Your task to perform on an android device: toggle notification dots Image 0: 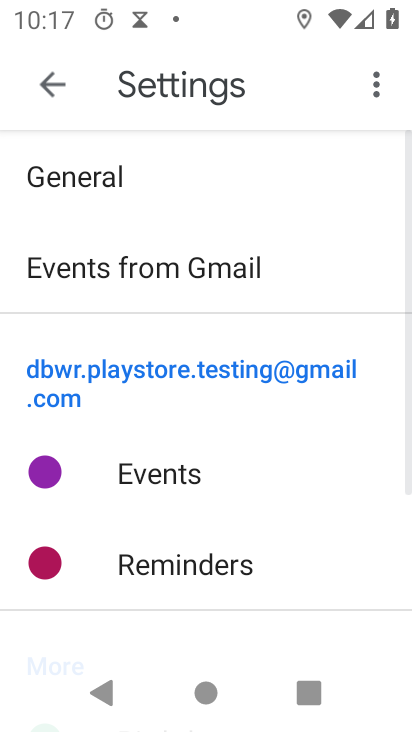
Step 0: press home button
Your task to perform on an android device: toggle notification dots Image 1: 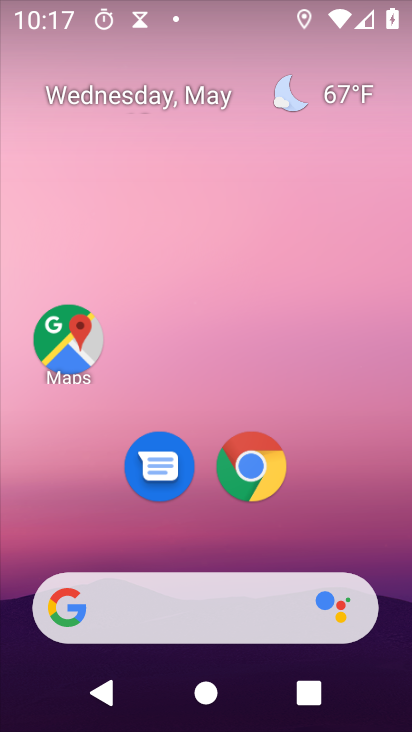
Step 1: drag from (267, 541) to (299, 162)
Your task to perform on an android device: toggle notification dots Image 2: 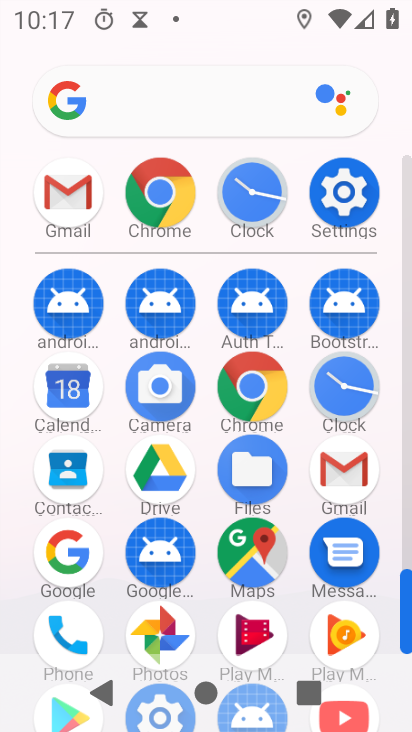
Step 2: click (338, 210)
Your task to perform on an android device: toggle notification dots Image 3: 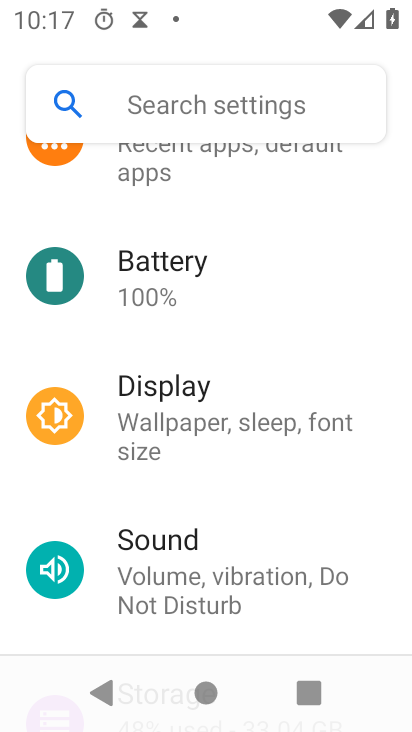
Step 3: drag from (176, 156) to (173, 427)
Your task to perform on an android device: toggle notification dots Image 4: 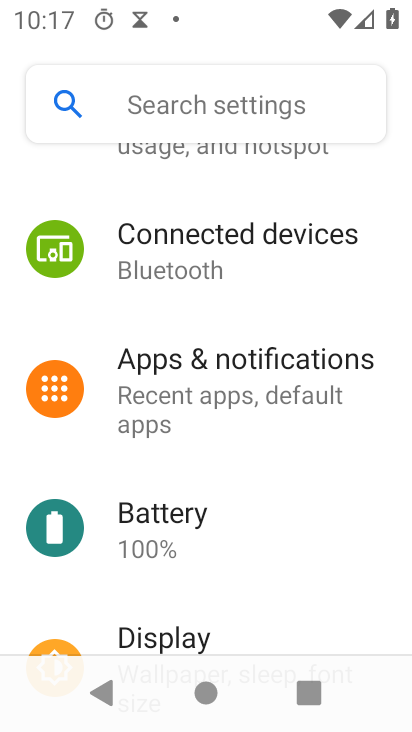
Step 4: click (164, 386)
Your task to perform on an android device: toggle notification dots Image 5: 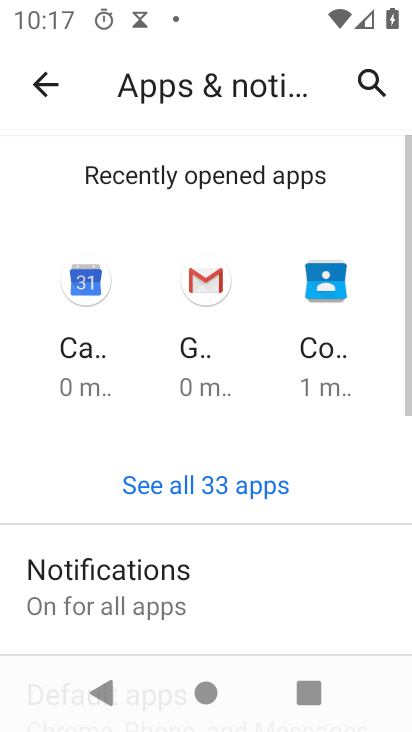
Step 5: drag from (211, 574) to (212, 307)
Your task to perform on an android device: toggle notification dots Image 6: 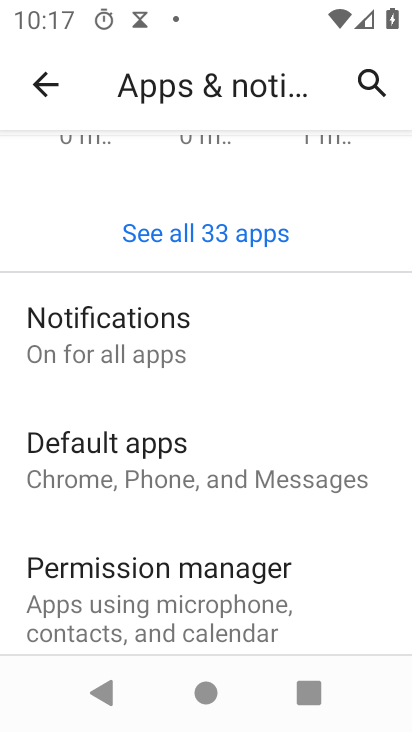
Step 6: click (139, 331)
Your task to perform on an android device: toggle notification dots Image 7: 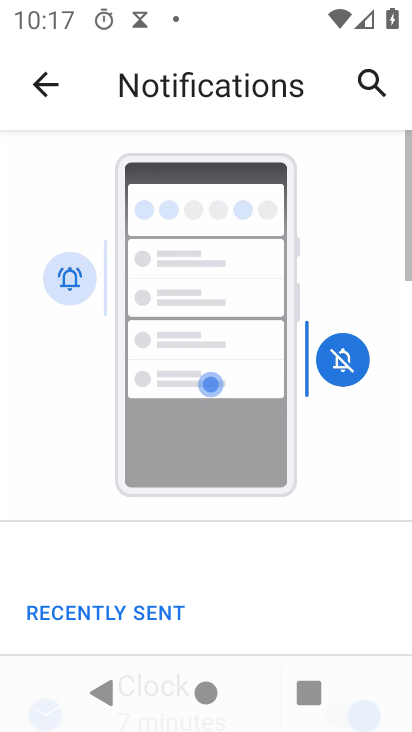
Step 7: drag from (161, 533) to (167, 190)
Your task to perform on an android device: toggle notification dots Image 8: 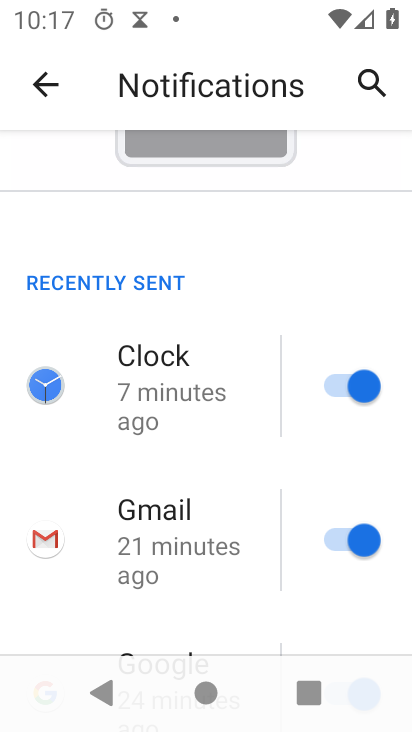
Step 8: drag from (148, 560) to (168, 240)
Your task to perform on an android device: toggle notification dots Image 9: 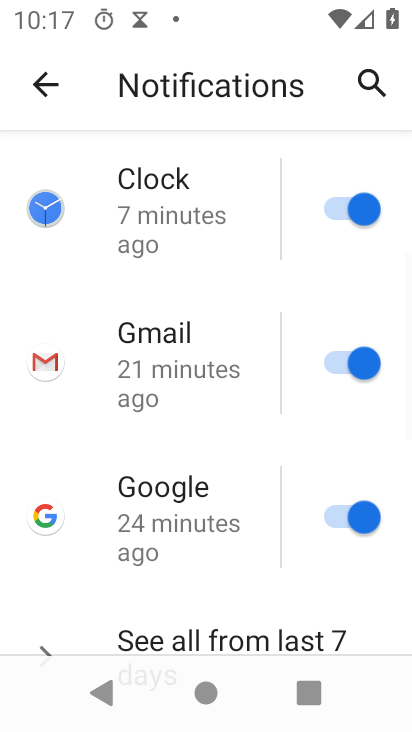
Step 9: drag from (175, 548) to (200, 228)
Your task to perform on an android device: toggle notification dots Image 10: 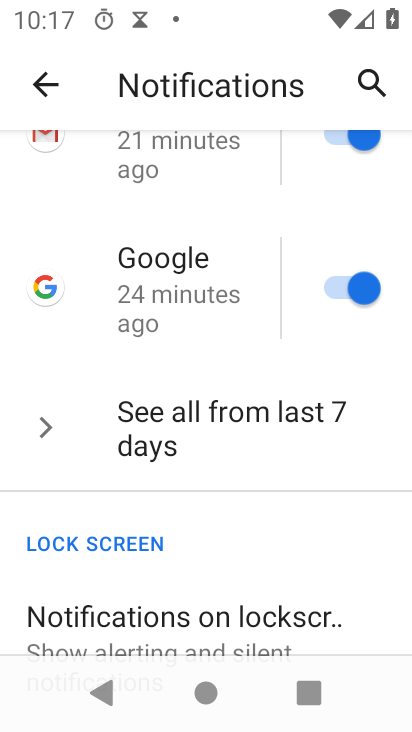
Step 10: click (188, 604)
Your task to perform on an android device: toggle notification dots Image 11: 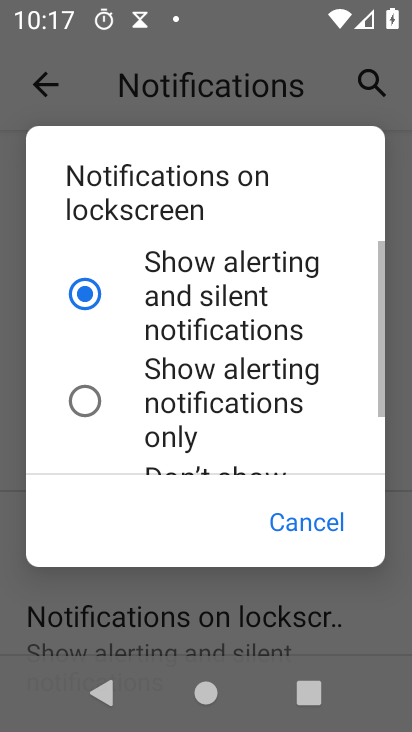
Step 11: click (286, 523)
Your task to perform on an android device: toggle notification dots Image 12: 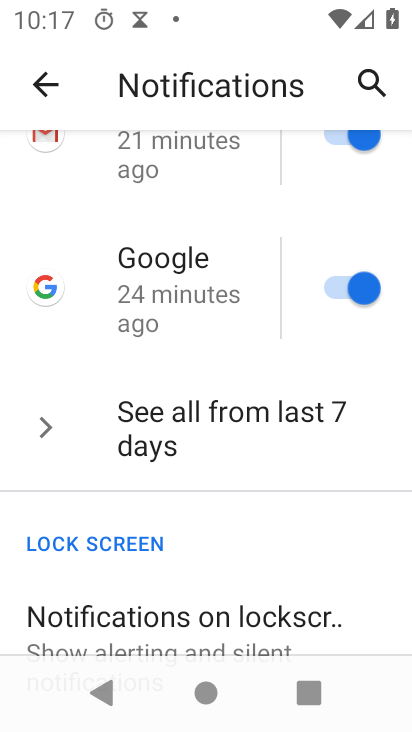
Step 12: drag from (212, 598) to (230, 283)
Your task to perform on an android device: toggle notification dots Image 13: 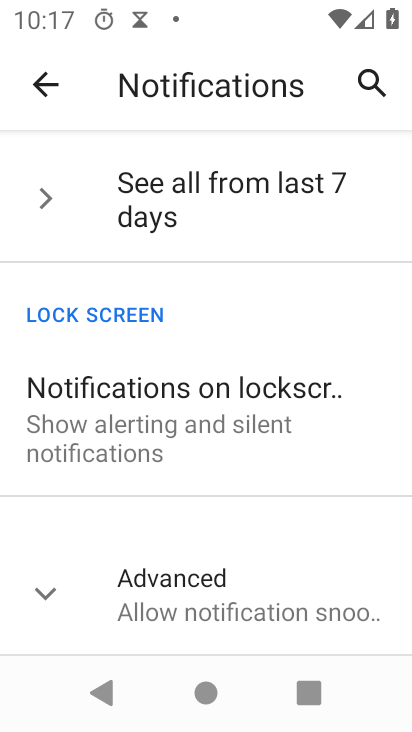
Step 13: click (192, 587)
Your task to perform on an android device: toggle notification dots Image 14: 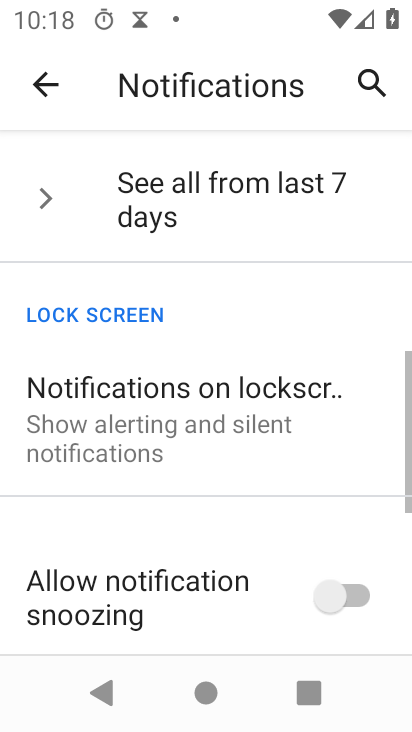
Step 14: drag from (193, 600) to (202, 304)
Your task to perform on an android device: toggle notification dots Image 15: 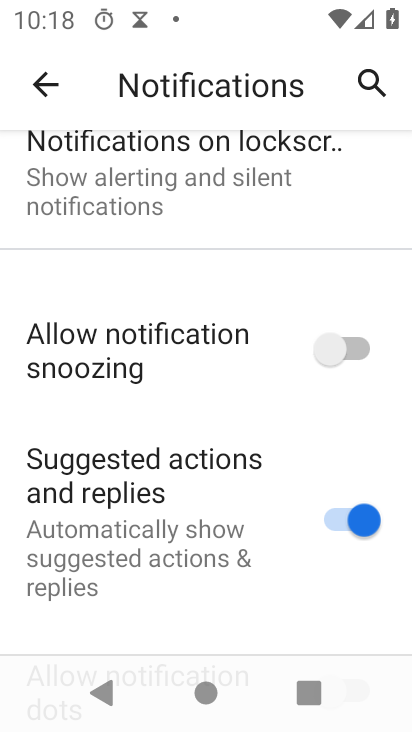
Step 15: drag from (215, 565) to (205, 223)
Your task to perform on an android device: toggle notification dots Image 16: 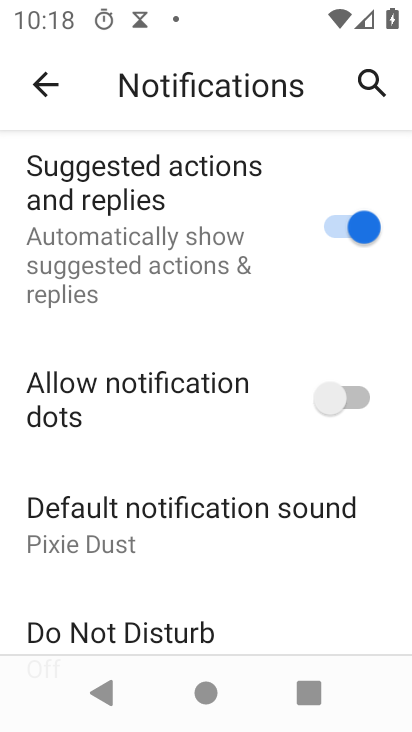
Step 16: drag from (188, 562) to (178, 273)
Your task to perform on an android device: toggle notification dots Image 17: 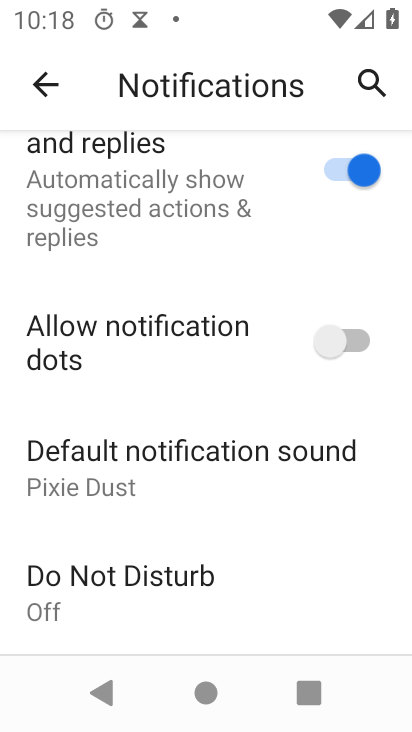
Step 17: click (352, 345)
Your task to perform on an android device: toggle notification dots Image 18: 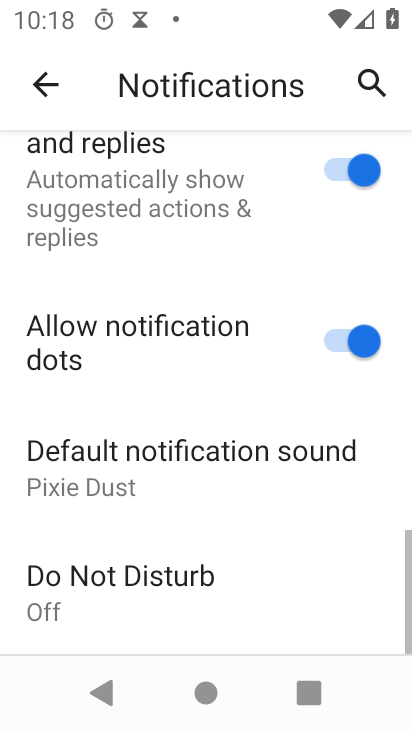
Step 18: task complete